Your task to perform on an android device: toggle pop-ups in chrome Image 0: 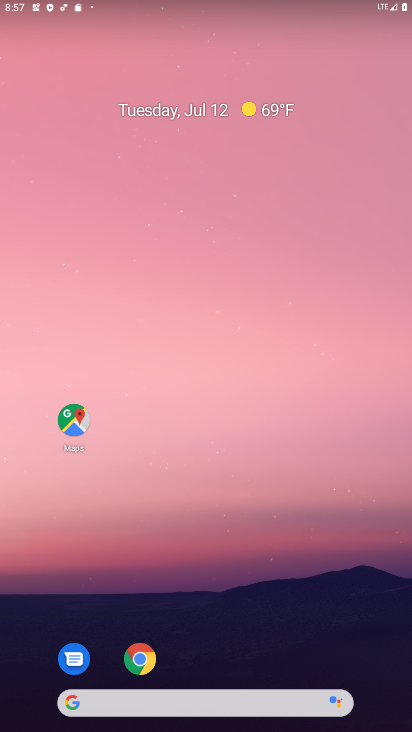
Step 0: click (133, 660)
Your task to perform on an android device: toggle pop-ups in chrome Image 1: 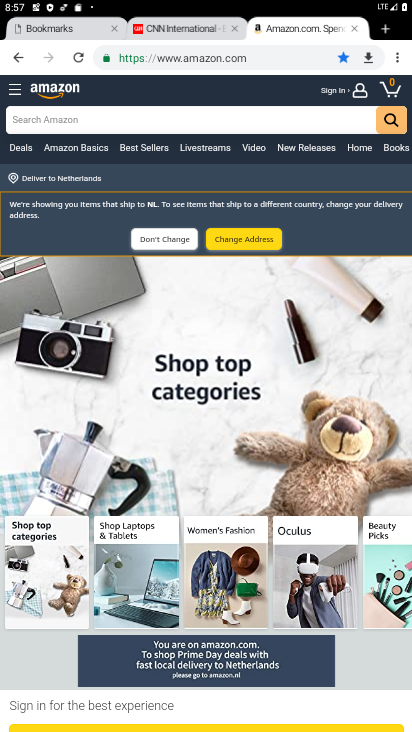
Step 1: click (397, 57)
Your task to perform on an android device: toggle pop-ups in chrome Image 2: 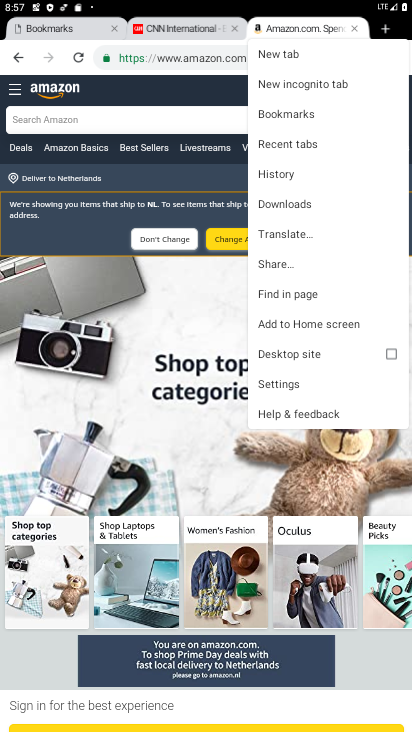
Step 2: click (276, 380)
Your task to perform on an android device: toggle pop-ups in chrome Image 3: 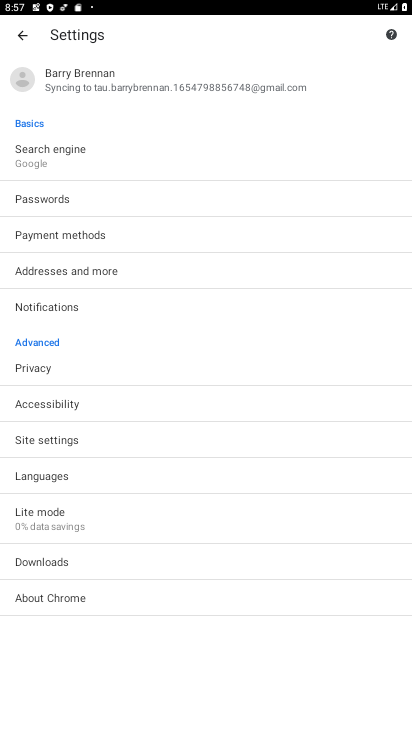
Step 3: click (41, 436)
Your task to perform on an android device: toggle pop-ups in chrome Image 4: 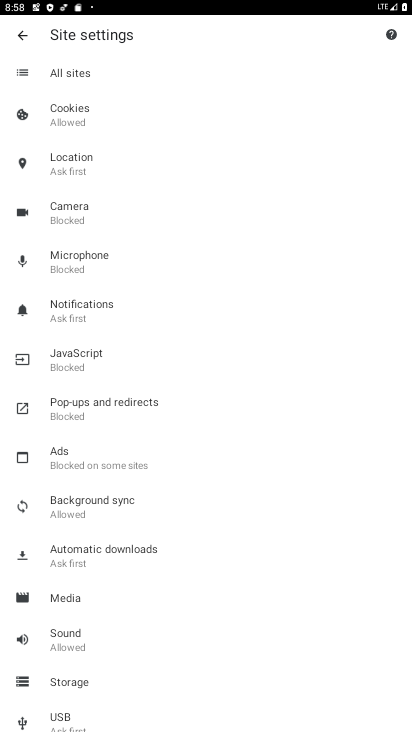
Step 4: click (63, 404)
Your task to perform on an android device: toggle pop-ups in chrome Image 5: 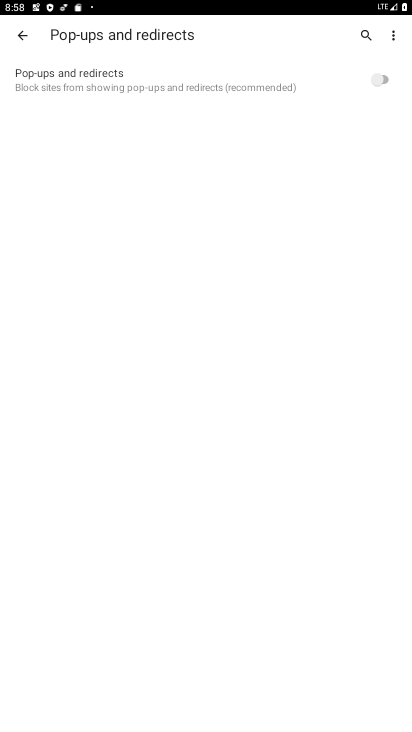
Step 5: click (384, 77)
Your task to perform on an android device: toggle pop-ups in chrome Image 6: 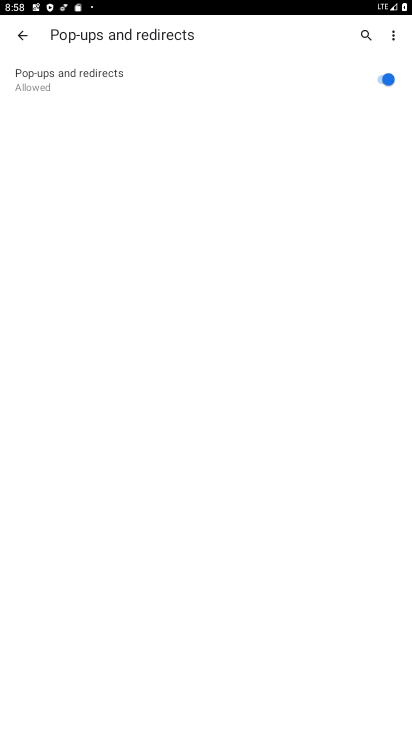
Step 6: task complete